Your task to perform on an android device: Show me productivity apps on the Play Store Image 0: 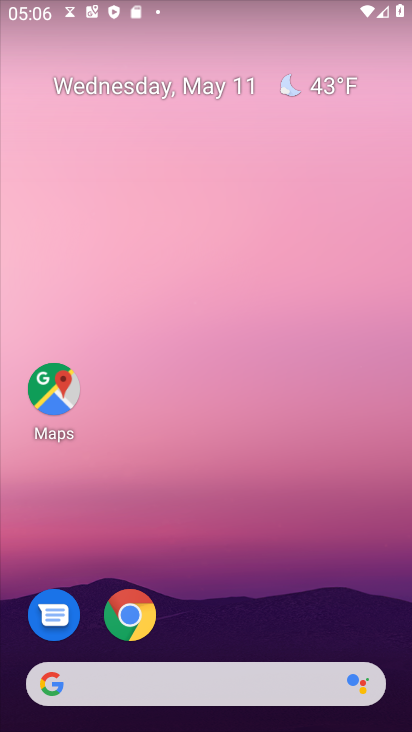
Step 0: drag from (264, 516) to (263, 59)
Your task to perform on an android device: Show me productivity apps on the Play Store Image 1: 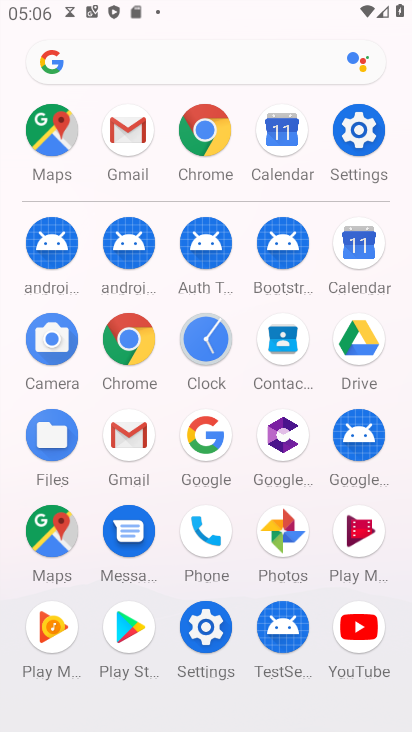
Step 1: drag from (3, 547) to (10, 352)
Your task to perform on an android device: Show me productivity apps on the Play Store Image 2: 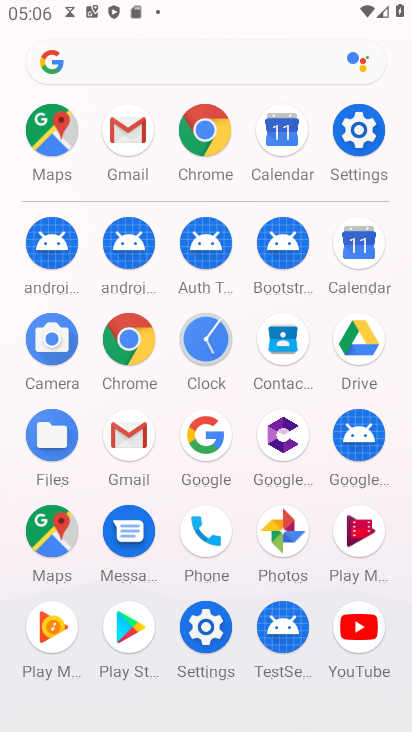
Step 2: click (126, 617)
Your task to perform on an android device: Show me productivity apps on the Play Store Image 3: 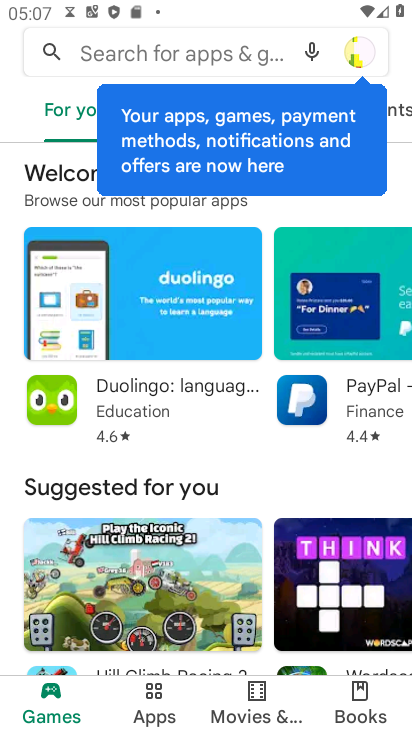
Step 3: click (150, 697)
Your task to perform on an android device: Show me productivity apps on the Play Store Image 4: 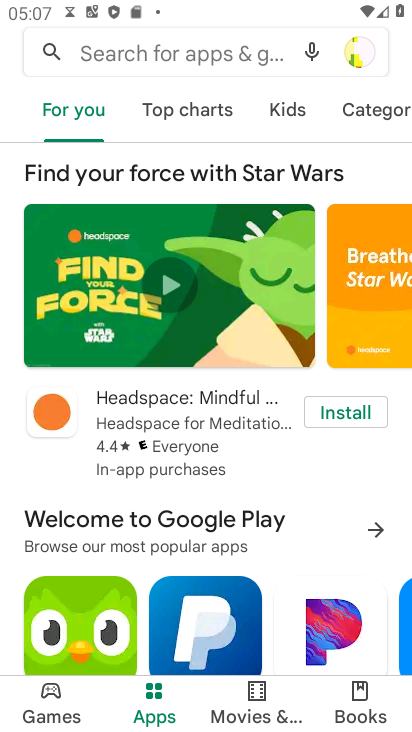
Step 4: drag from (200, 548) to (212, 276)
Your task to perform on an android device: Show me productivity apps on the Play Store Image 5: 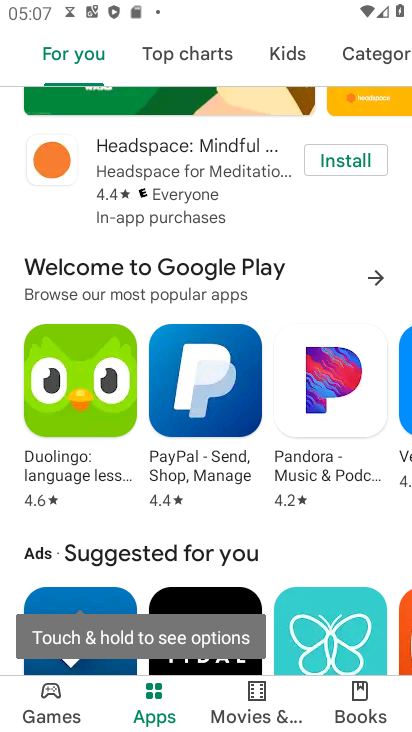
Step 5: click (369, 55)
Your task to perform on an android device: Show me productivity apps on the Play Store Image 6: 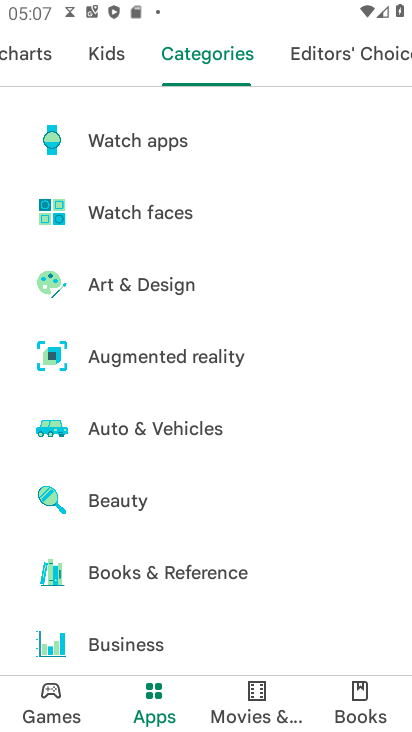
Step 6: drag from (259, 587) to (253, 140)
Your task to perform on an android device: Show me productivity apps on the Play Store Image 7: 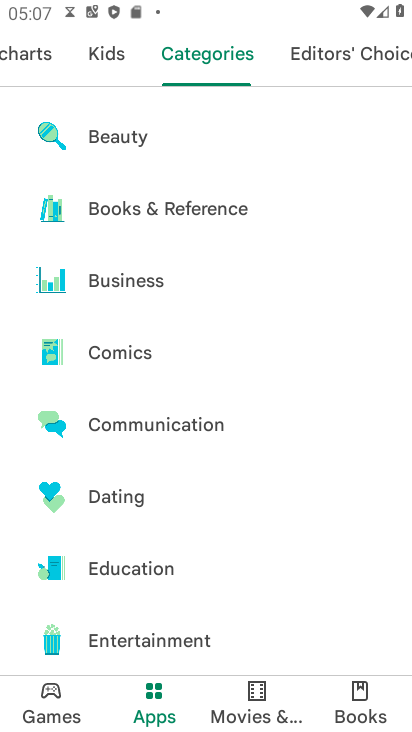
Step 7: drag from (219, 579) to (248, 192)
Your task to perform on an android device: Show me productivity apps on the Play Store Image 8: 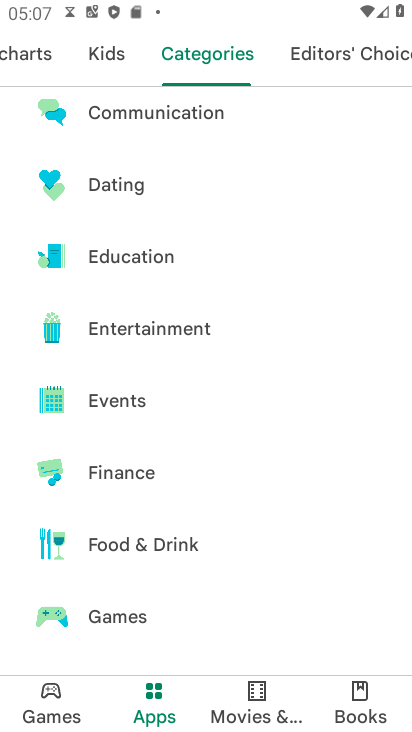
Step 8: drag from (262, 551) to (280, 169)
Your task to perform on an android device: Show me productivity apps on the Play Store Image 9: 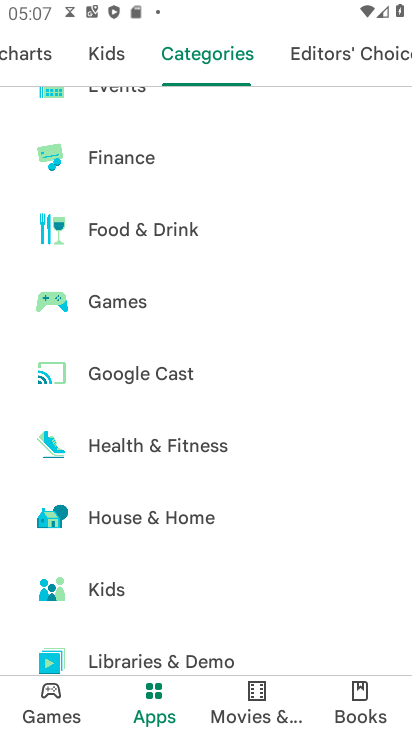
Step 9: drag from (284, 457) to (294, 146)
Your task to perform on an android device: Show me productivity apps on the Play Store Image 10: 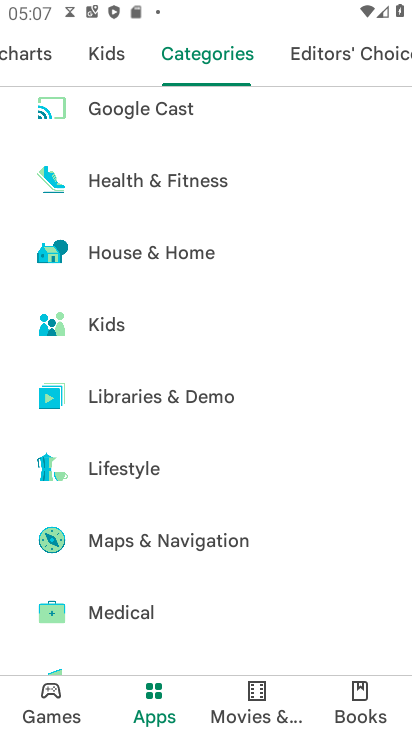
Step 10: drag from (277, 615) to (259, 138)
Your task to perform on an android device: Show me productivity apps on the Play Store Image 11: 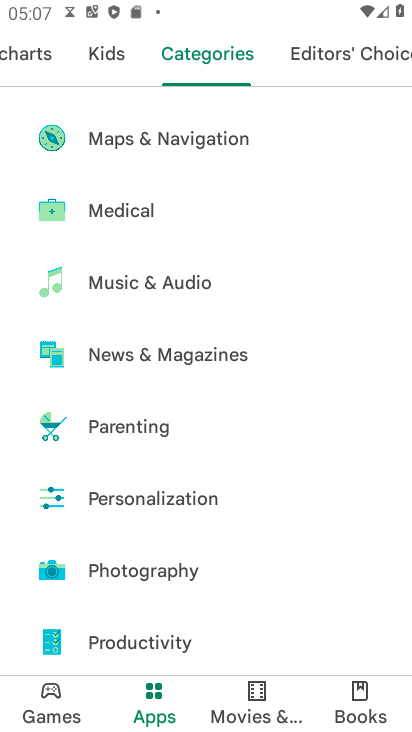
Step 11: click (150, 626)
Your task to perform on an android device: Show me productivity apps on the Play Store Image 12: 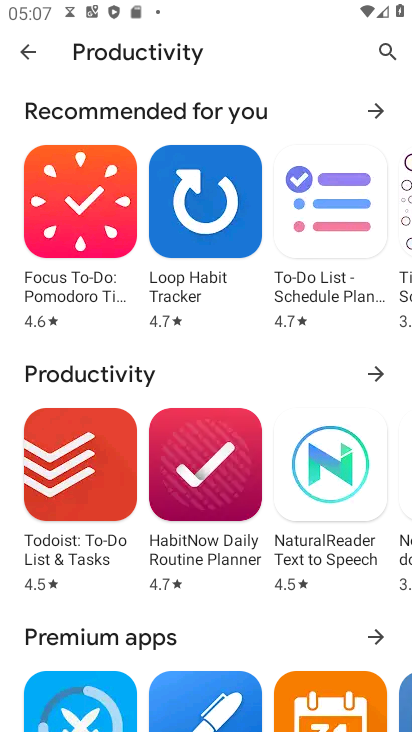
Step 12: task complete